Your task to perform on an android device: Show me popular games on the Play Store Image 0: 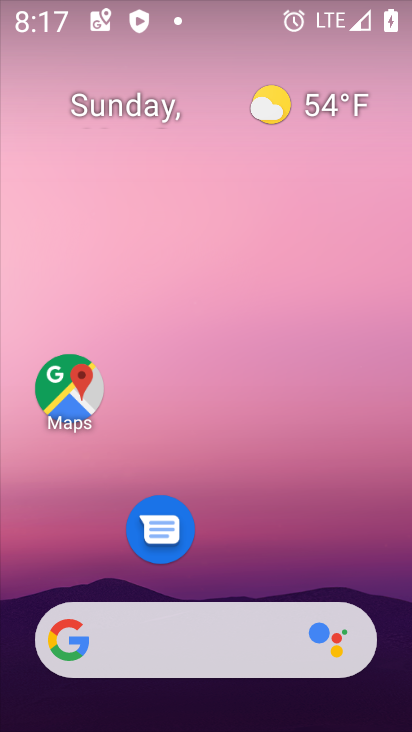
Step 0: drag from (188, 593) to (270, 52)
Your task to perform on an android device: Show me popular games on the Play Store Image 1: 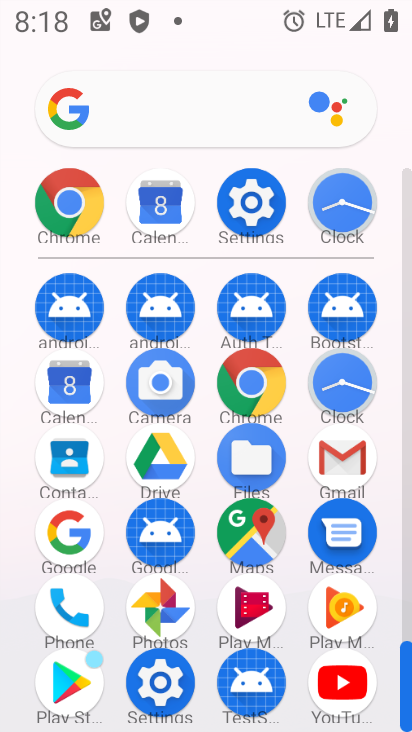
Step 1: click (65, 678)
Your task to perform on an android device: Show me popular games on the Play Store Image 2: 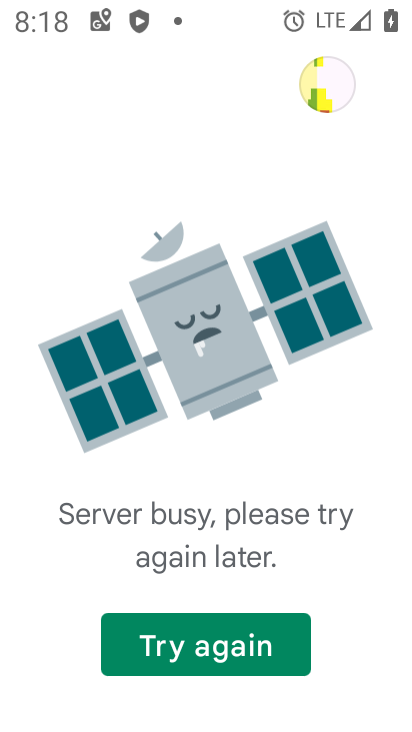
Step 2: click (220, 655)
Your task to perform on an android device: Show me popular games on the Play Store Image 3: 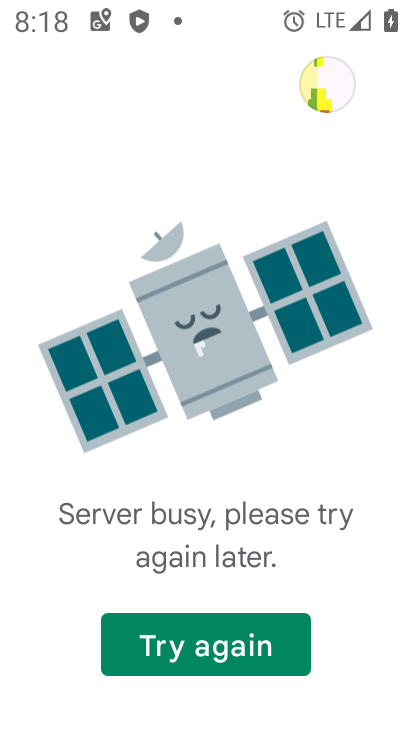
Step 3: click (182, 632)
Your task to perform on an android device: Show me popular games on the Play Store Image 4: 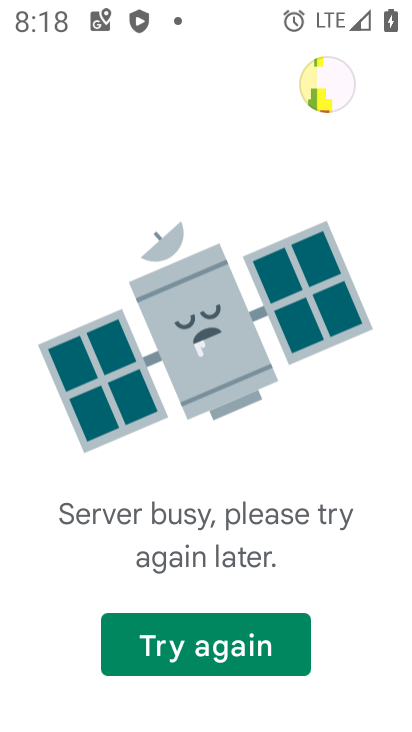
Step 4: task complete